Your task to perform on an android device: turn off data saver in the chrome app Image 0: 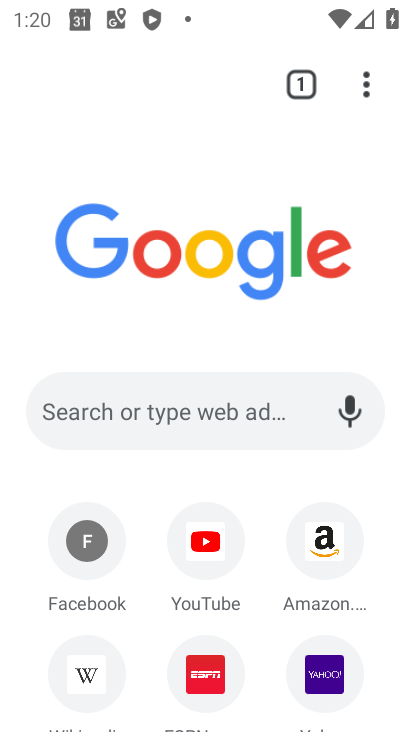
Step 0: press home button
Your task to perform on an android device: turn off data saver in the chrome app Image 1: 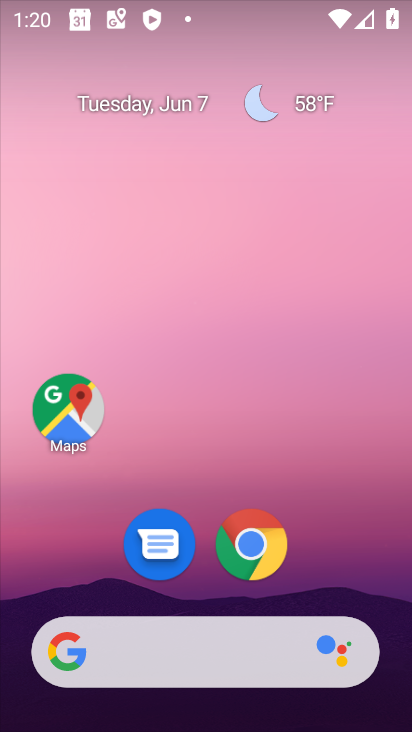
Step 1: click (242, 572)
Your task to perform on an android device: turn off data saver in the chrome app Image 2: 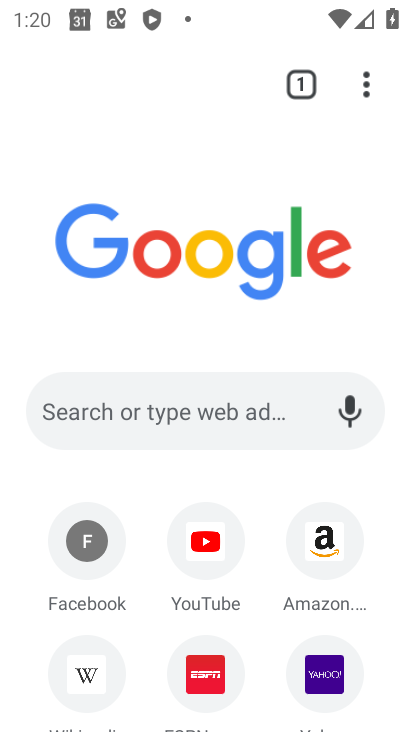
Step 2: drag from (362, 82) to (159, 592)
Your task to perform on an android device: turn off data saver in the chrome app Image 3: 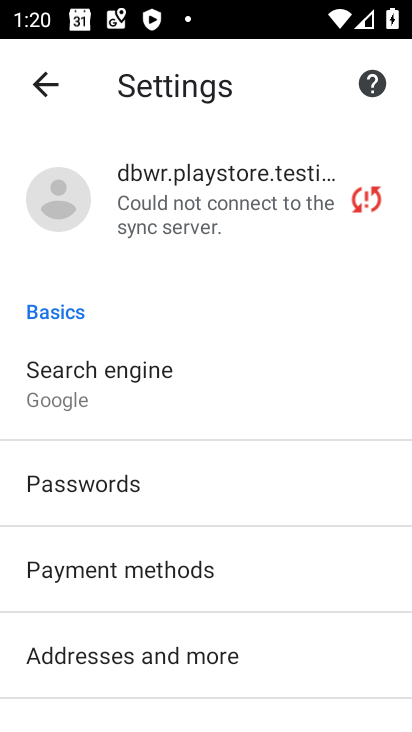
Step 3: drag from (159, 592) to (170, 84)
Your task to perform on an android device: turn off data saver in the chrome app Image 4: 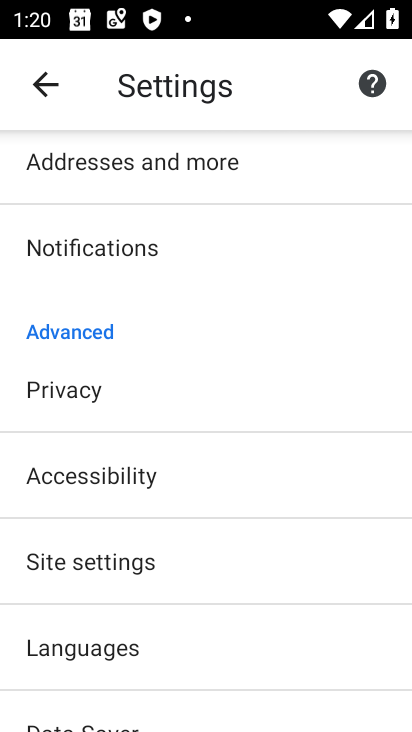
Step 4: drag from (126, 641) to (160, 289)
Your task to perform on an android device: turn off data saver in the chrome app Image 5: 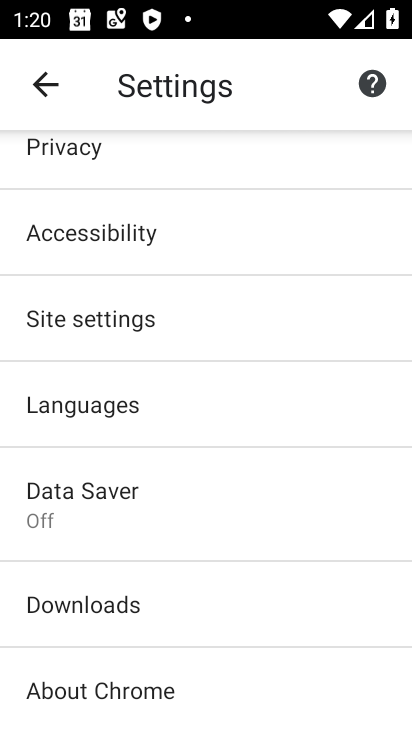
Step 5: click (92, 458)
Your task to perform on an android device: turn off data saver in the chrome app Image 6: 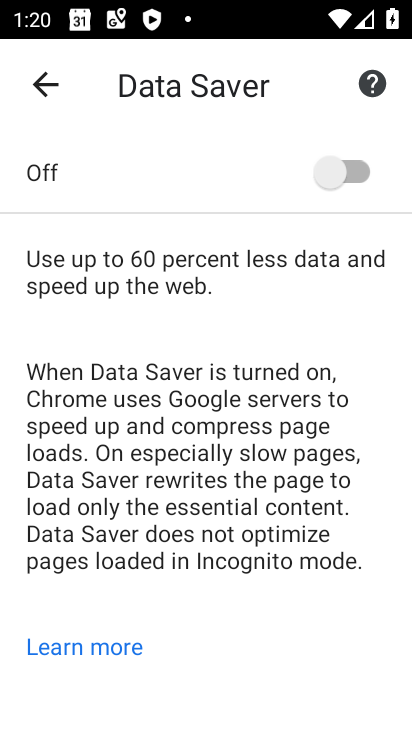
Step 6: task complete